Your task to perform on an android device: What time is it in Tokyo? Image 0: 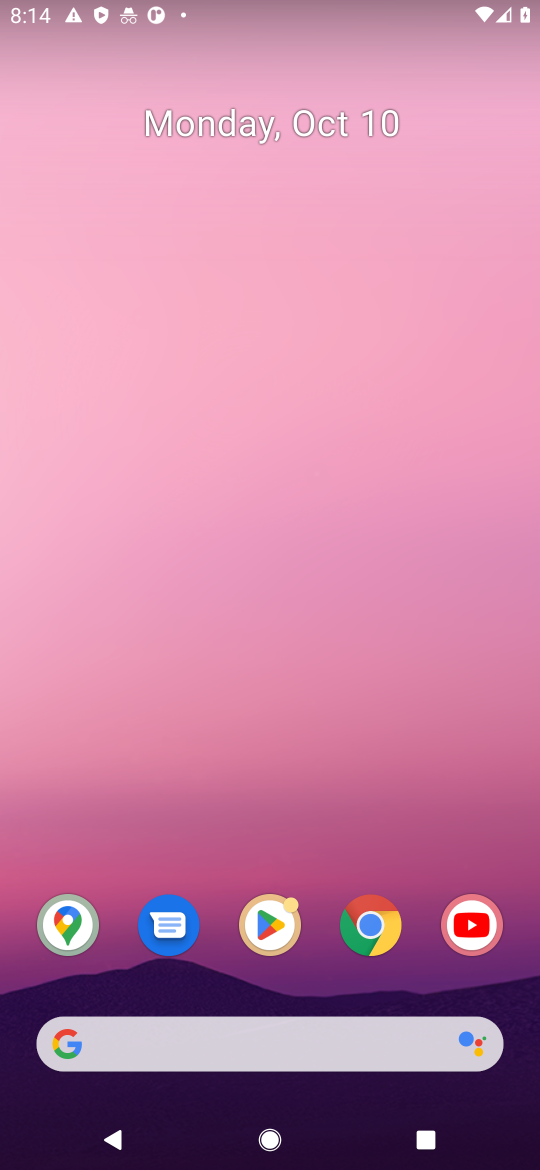
Step 0: drag from (336, 996) to (264, 176)
Your task to perform on an android device: What time is it in Tokyo? Image 1: 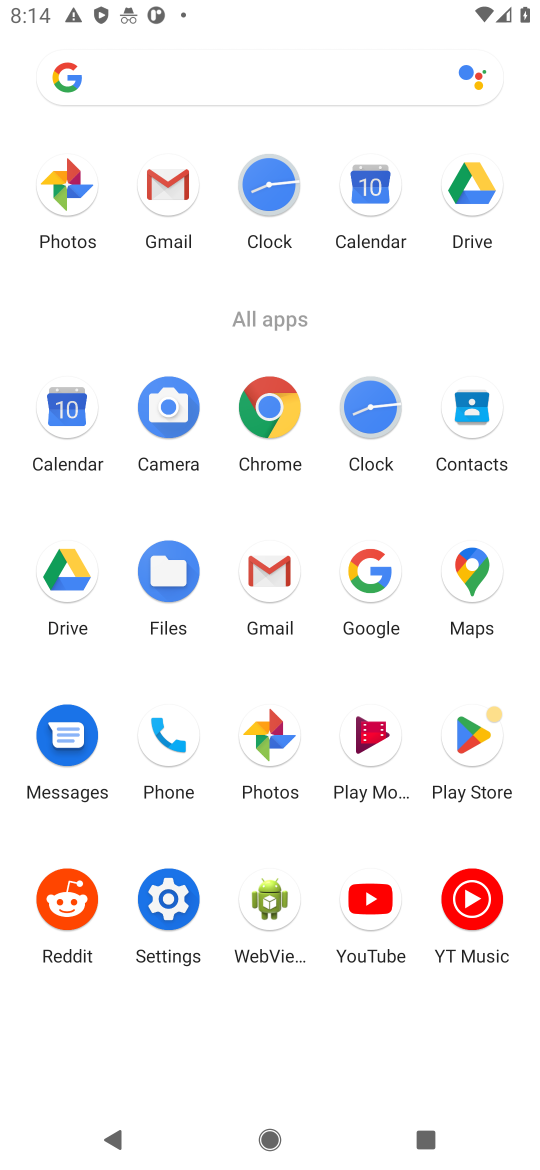
Step 1: click (277, 409)
Your task to perform on an android device: What time is it in Tokyo? Image 2: 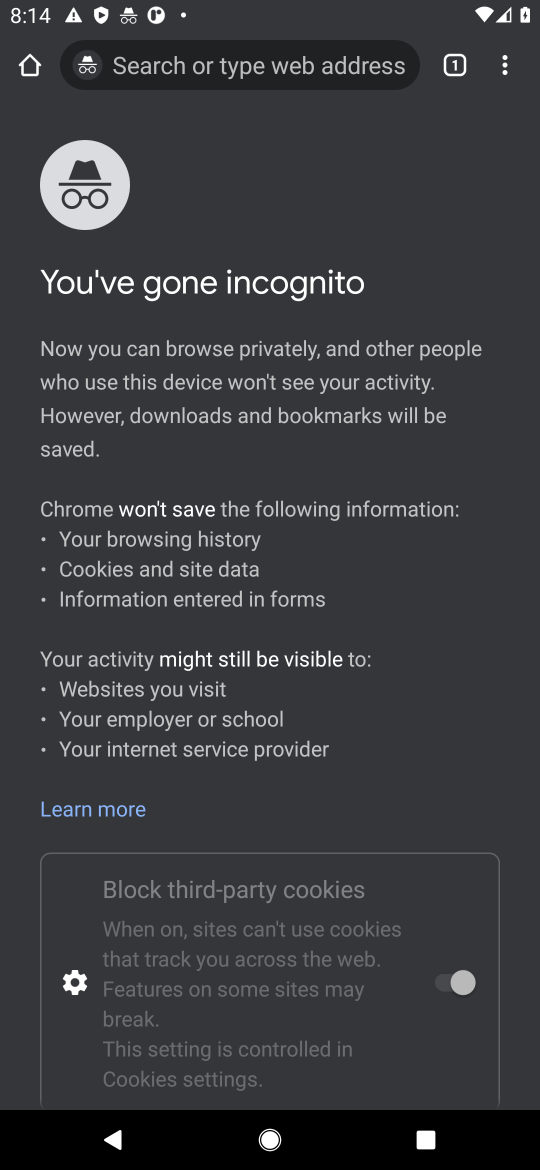
Step 2: click (314, 62)
Your task to perform on an android device: What time is it in Tokyo? Image 3: 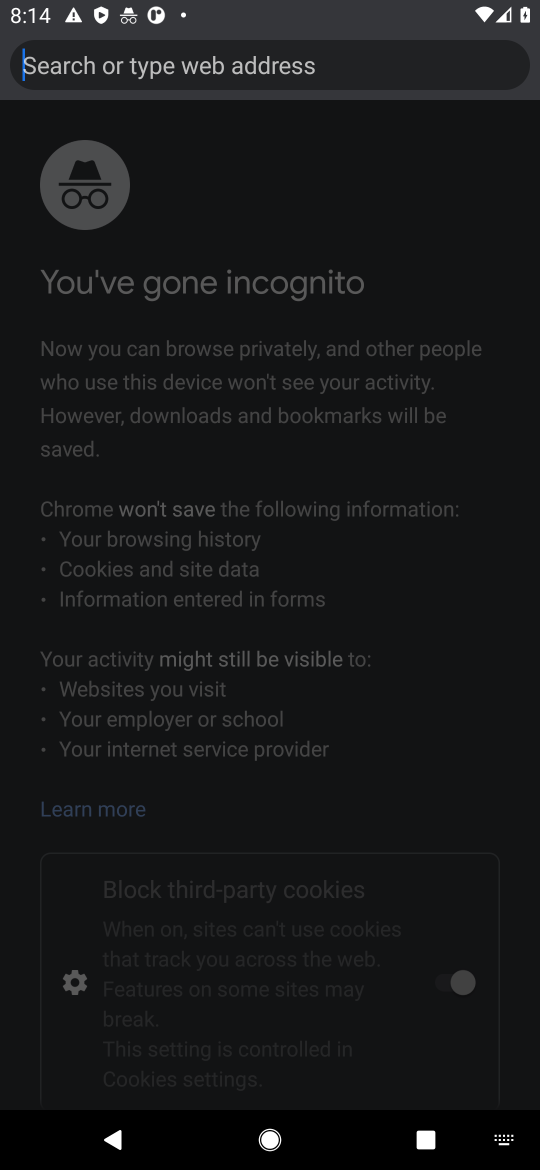
Step 3: type "What time is it in Tokyo?"
Your task to perform on an android device: What time is it in Tokyo? Image 4: 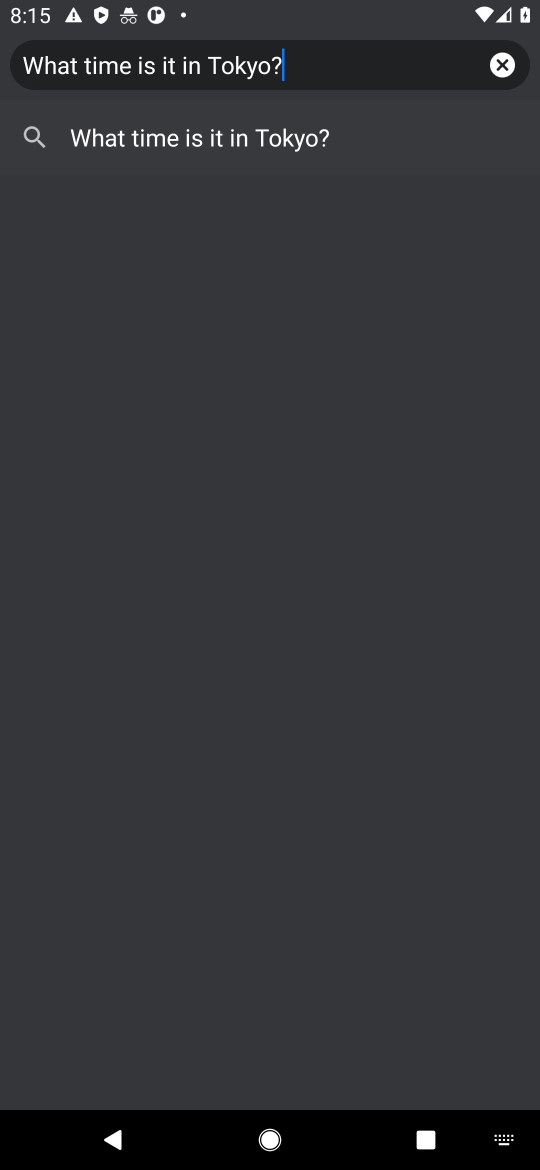
Step 4: press enter
Your task to perform on an android device: What time is it in Tokyo? Image 5: 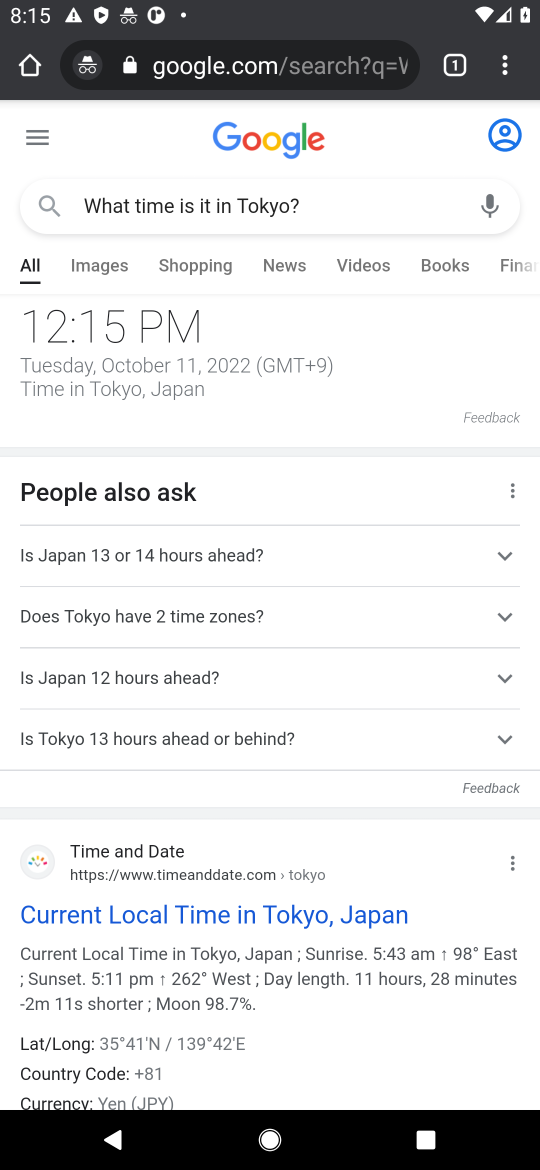
Step 5: task complete